Your task to perform on an android device: Turn on the flashlight Image 0: 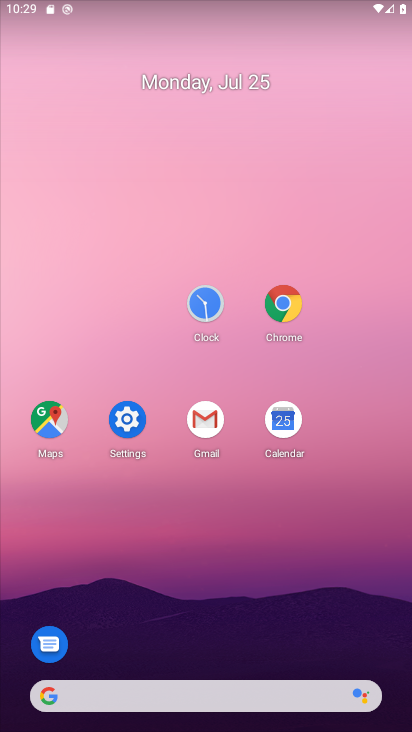
Step 0: click (119, 423)
Your task to perform on an android device: Turn on the flashlight Image 1: 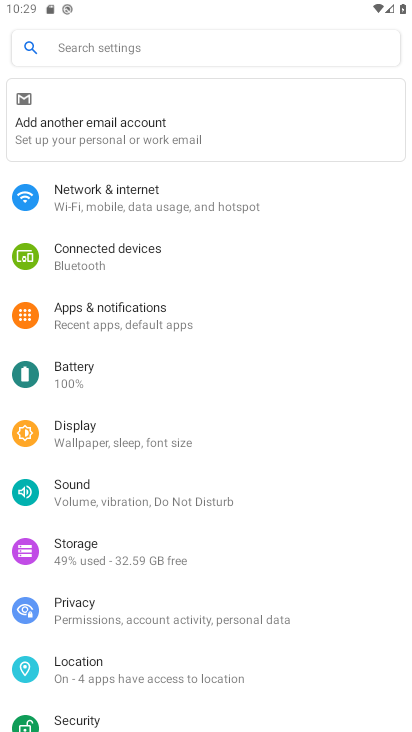
Step 1: click (81, 427)
Your task to perform on an android device: Turn on the flashlight Image 2: 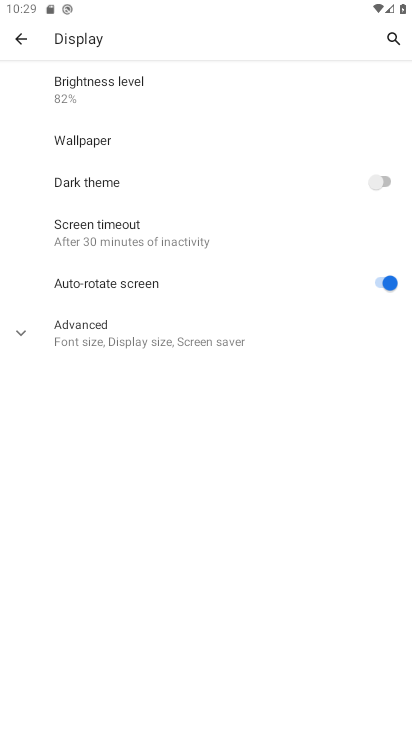
Step 2: task complete